Your task to perform on an android device: Open Yahoo.com Image 0: 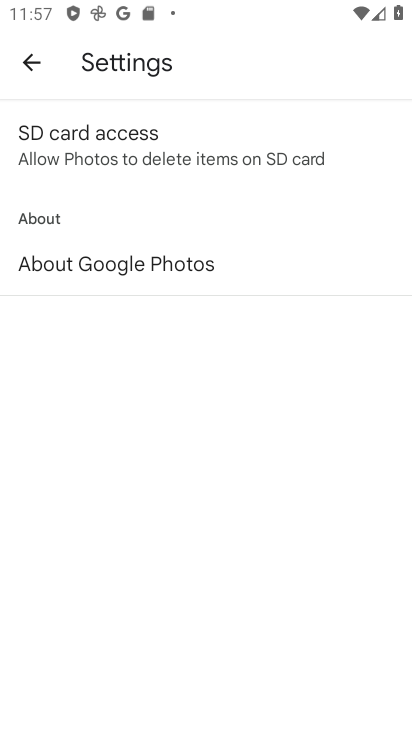
Step 0: click (28, 50)
Your task to perform on an android device: Open Yahoo.com Image 1: 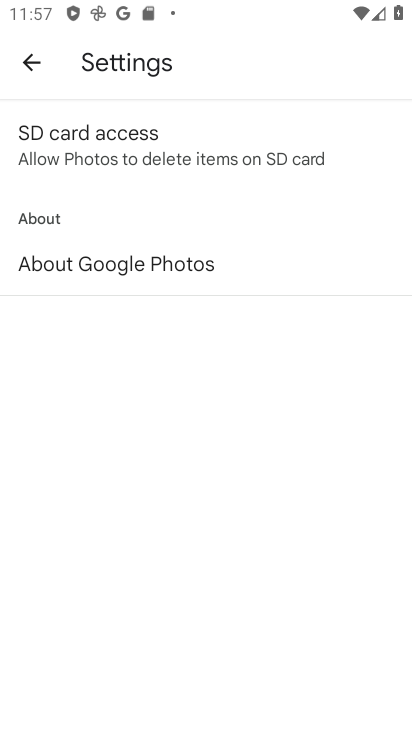
Step 1: click (28, 51)
Your task to perform on an android device: Open Yahoo.com Image 2: 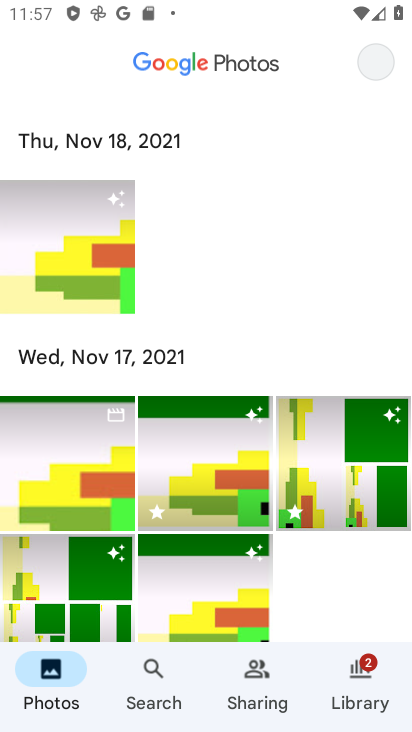
Step 2: click (28, 55)
Your task to perform on an android device: Open Yahoo.com Image 3: 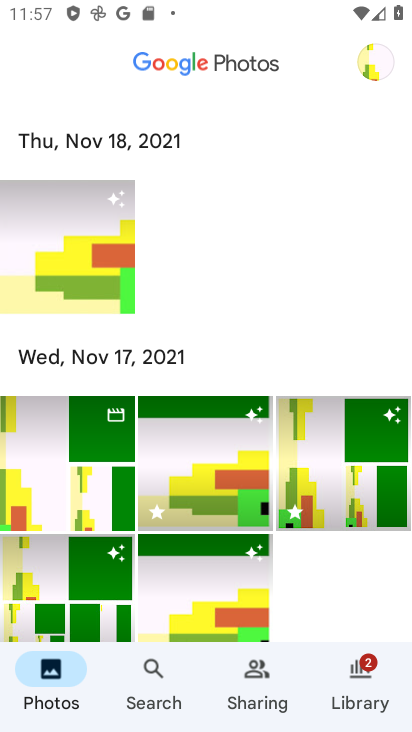
Step 3: press back button
Your task to perform on an android device: Open Yahoo.com Image 4: 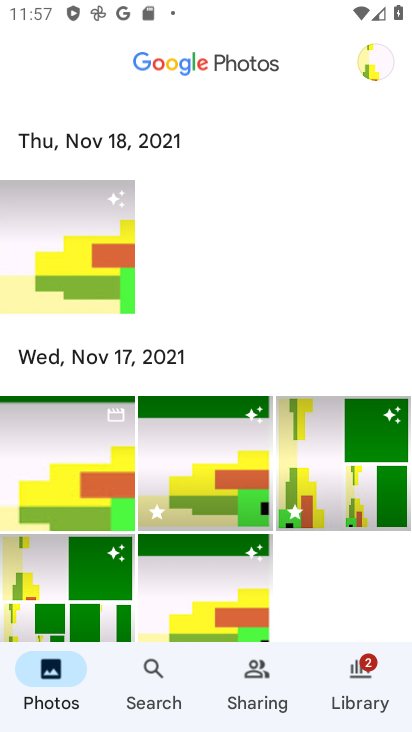
Step 4: press back button
Your task to perform on an android device: Open Yahoo.com Image 5: 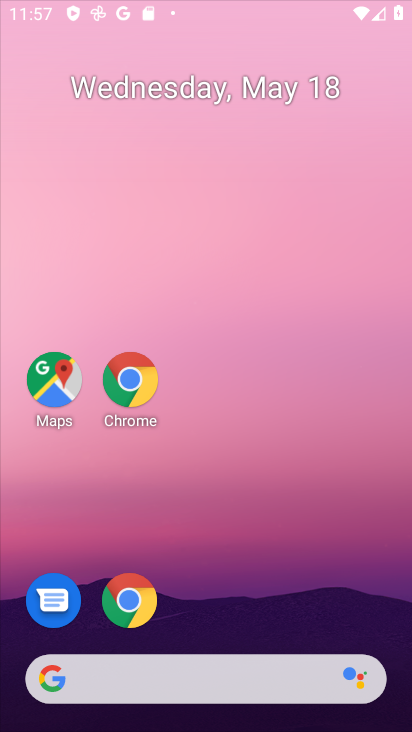
Step 5: press back button
Your task to perform on an android device: Open Yahoo.com Image 6: 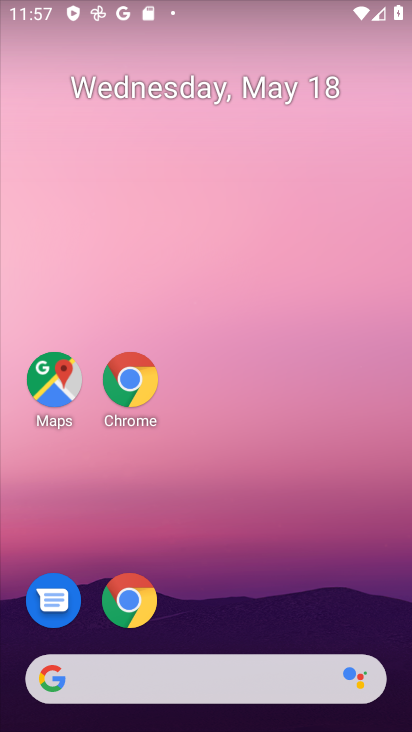
Step 6: drag from (328, 595) to (137, 72)
Your task to perform on an android device: Open Yahoo.com Image 7: 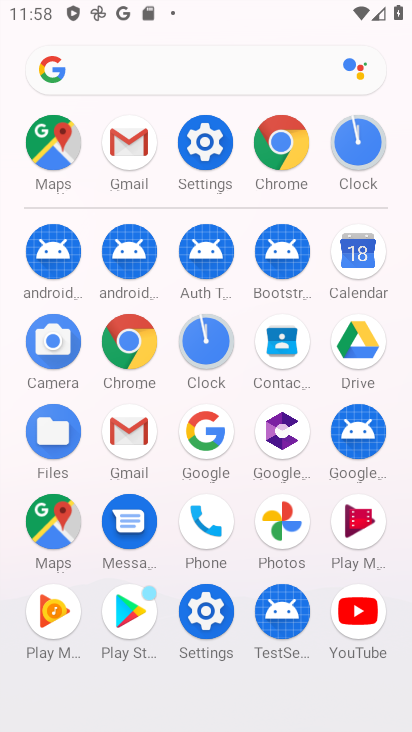
Step 7: click (284, 137)
Your task to perform on an android device: Open Yahoo.com Image 8: 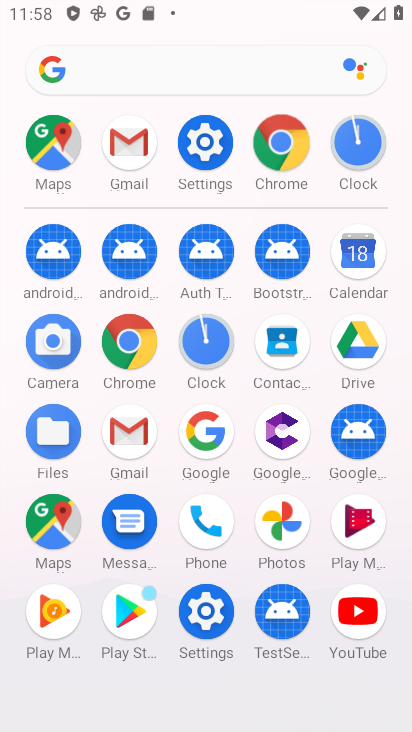
Step 8: click (283, 137)
Your task to perform on an android device: Open Yahoo.com Image 9: 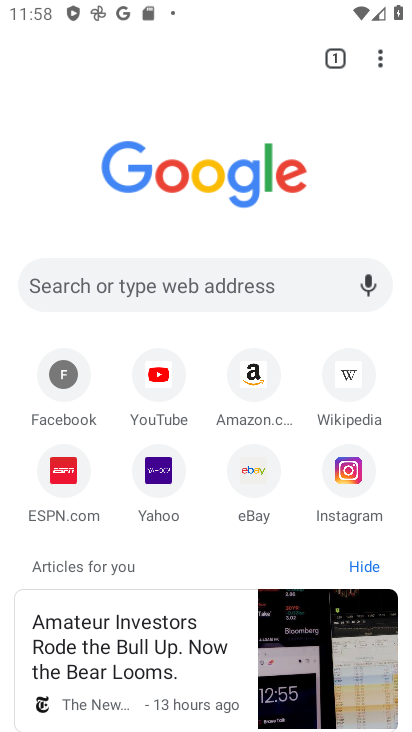
Step 9: click (149, 474)
Your task to perform on an android device: Open Yahoo.com Image 10: 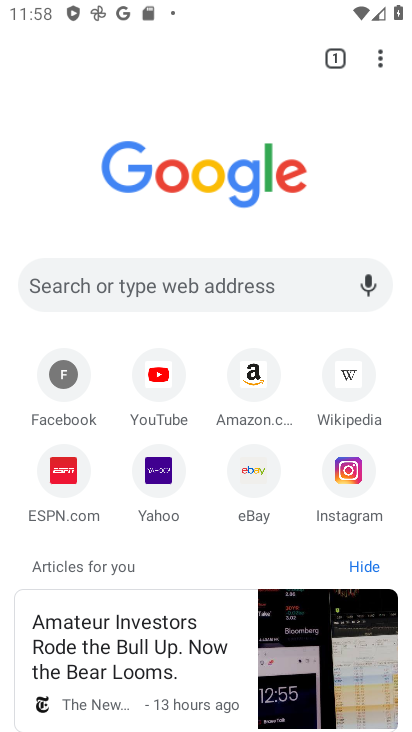
Step 10: click (150, 474)
Your task to perform on an android device: Open Yahoo.com Image 11: 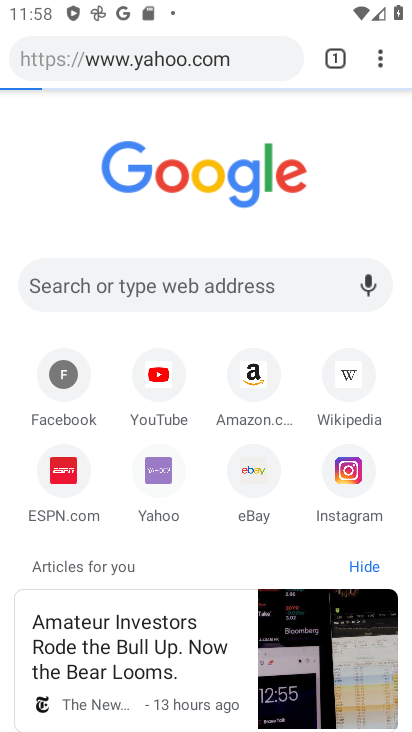
Step 11: click (153, 490)
Your task to perform on an android device: Open Yahoo.com Image 12: 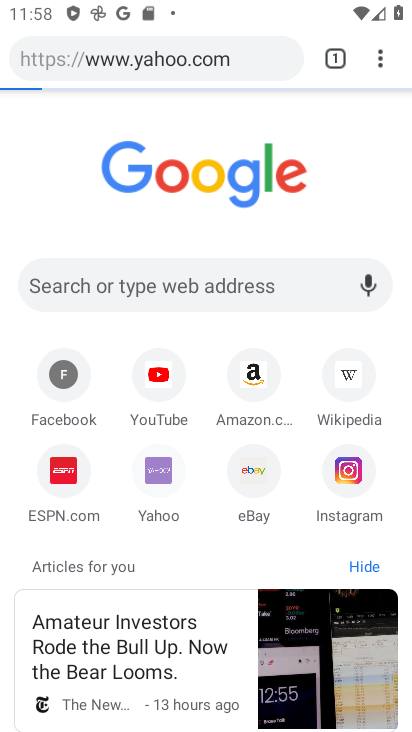
Step 12: click (153, 487)
Your task to perform on an android device: Open Yahoo.com Image 13: 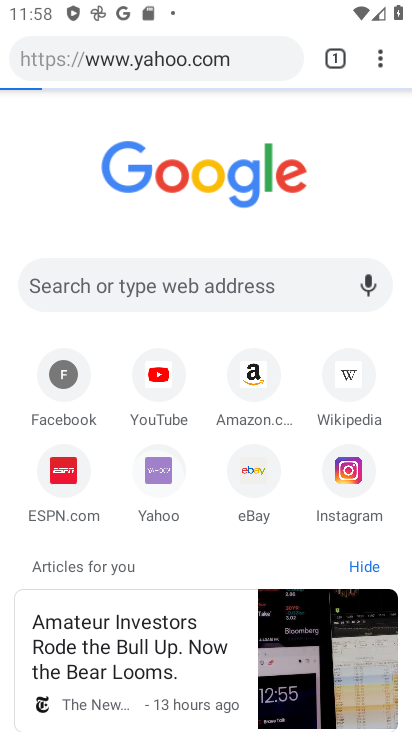
Step 13: click (153, 487)
Your task to perform on an android device: Open Yahoo.com Image 14: 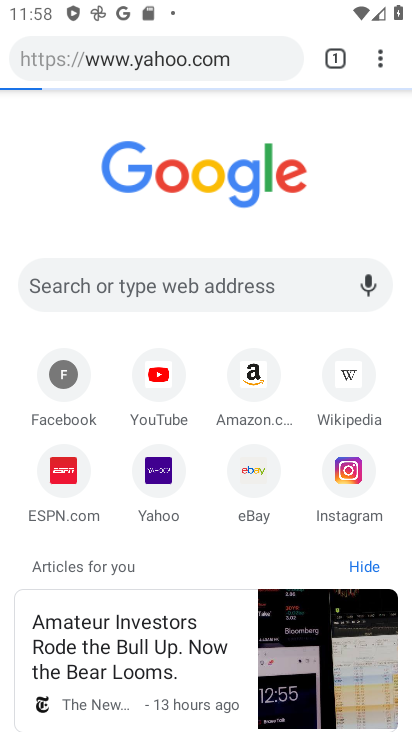
Step 14: click (153, 482)
Your task to perform on an android device: Open Yahoo.com Image 15: 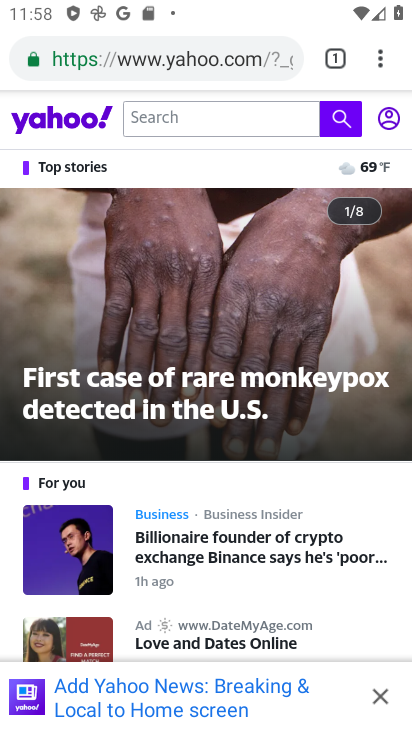
Step 15: press back button
Your task to perform on an android device: Open Yahoo.com Image 16: 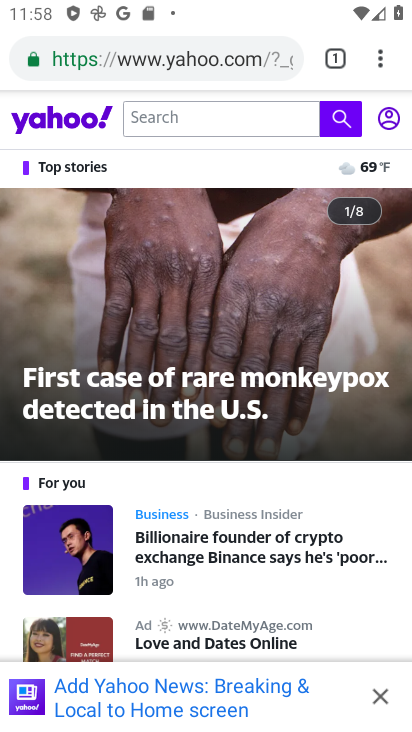
Step 16: press back button
Your task to perform on an android device: Open Yahoo.com Image 17: 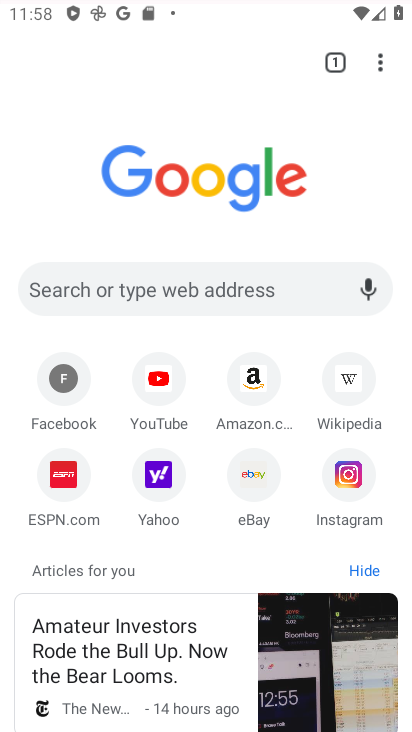
Step 17: press back button
Your task to perform on an android device: Open Yahoo.com Image 18: 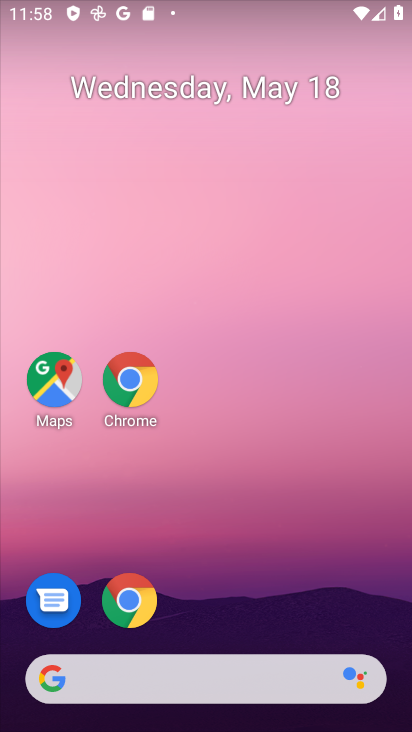
Step 18: press home button
Your task to perform on an android device: Open Yahoo.com Image 19: 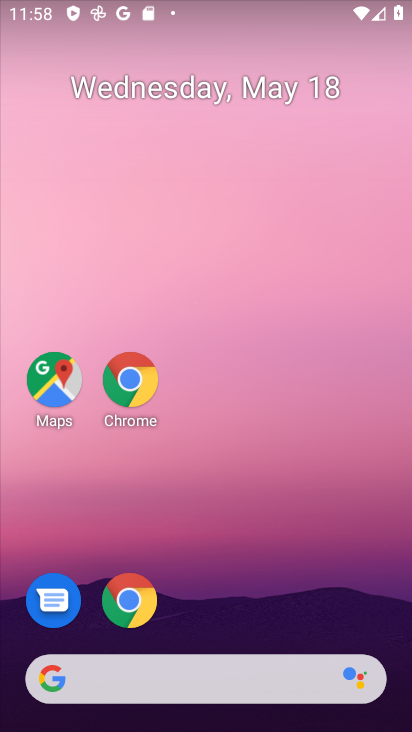
Step 19: press home button
Your task to perform on an android device: Open Yahoo.com Image 20: 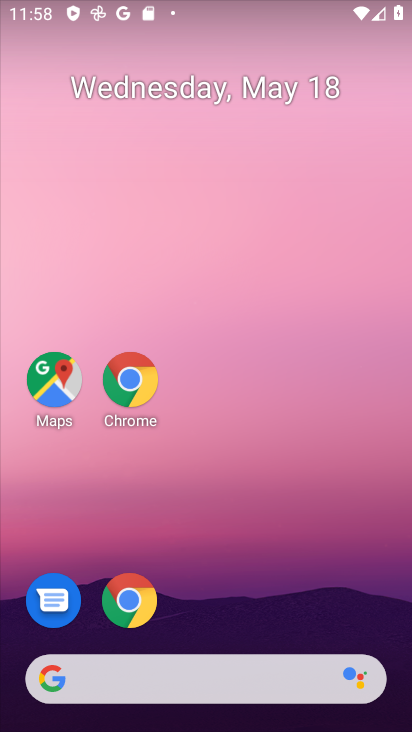
Step 20: drag from (331, 674) to (156, 29)
Your task to perform on an android device: Open Yahoo.com Image 21: 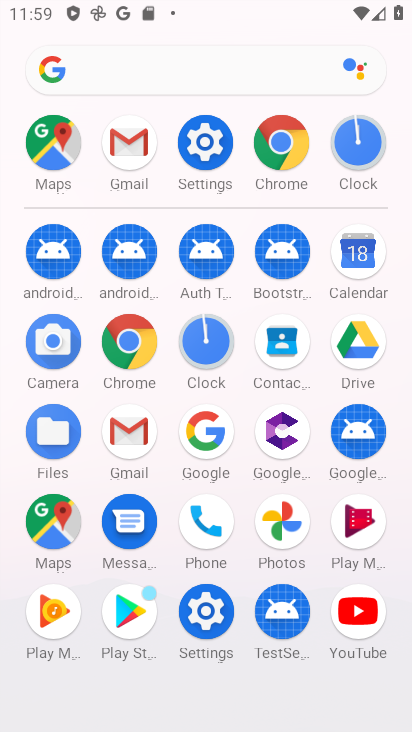
Step 21: click (272, 134)
Your task to perform on an android device: Open Yahoo.com Image 22: 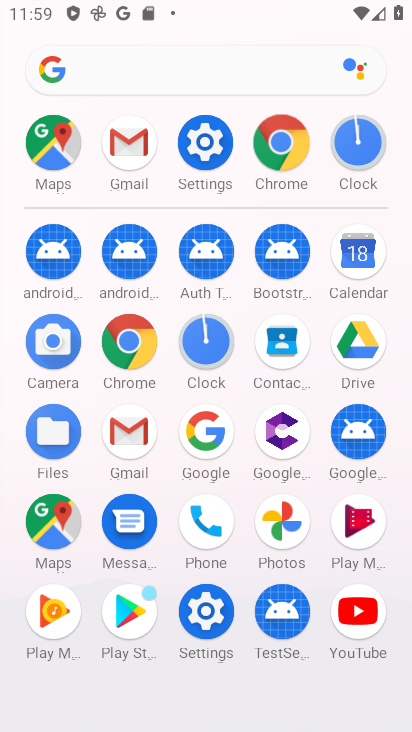
Step 22: click (271, 133)
Your task to perform on an android device: Open Yahoo.com Image 23: 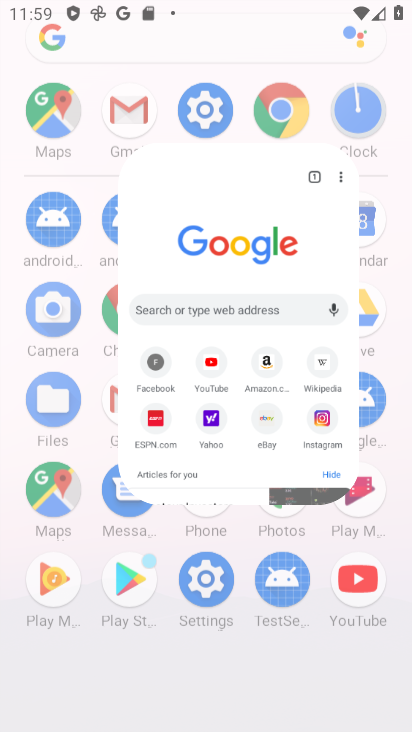
Step 23: click (271, 133)
Your task to perform on an android device: Open Yahoo.com Image 24: 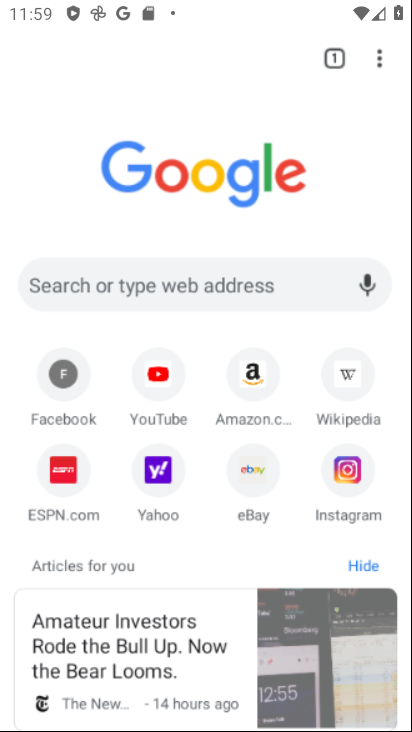
Step 24: click (278, 133)
Your task to perform on an android device: Open Yahoo.com Image 25: 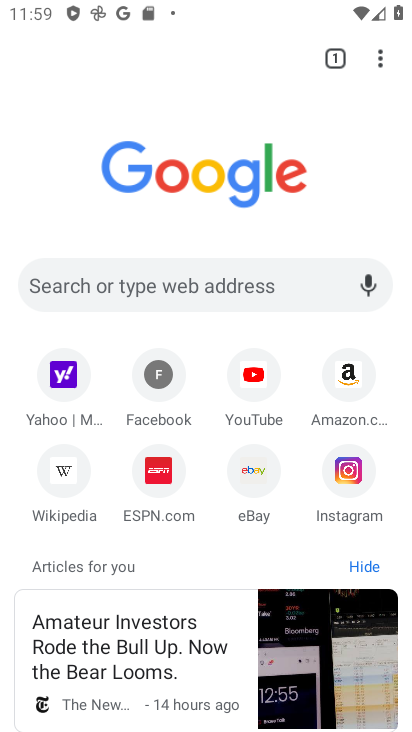
Step 25: click (58, 373)
Your task to perform on an android device: Open Yahoo.com Image 26: 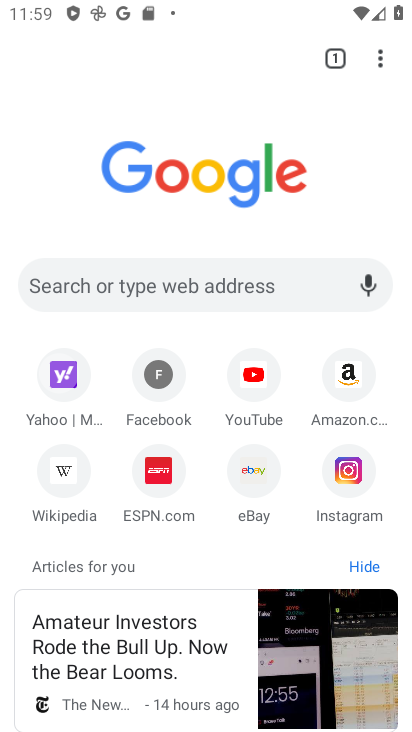
Step 26: click (59, 372)
Your task to perform on an android device: Open Yahoo.com Image 27: 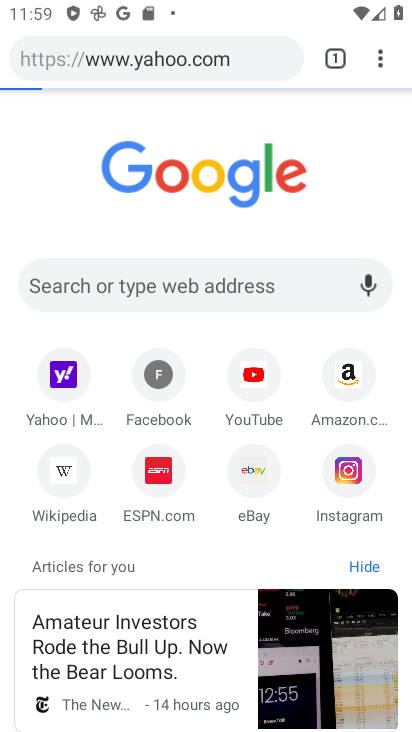
Step 27: click (63, 372)
Your task to perform on an android device: Open Yahoo.com Image 28: 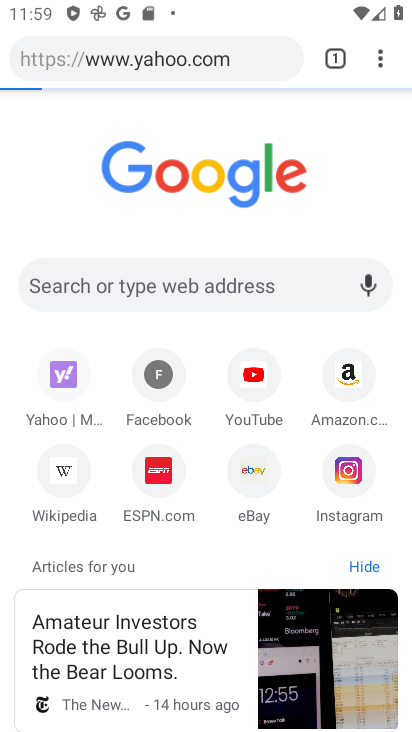
Step 28: click (64, 374)
Your task to perform on an android device: Open Yahoo.com Image 29: 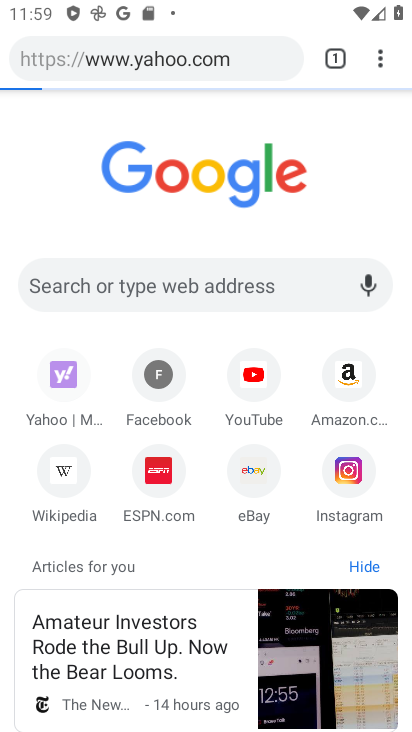
Step 29: click (69, 373)
Your task to perform on an android device: Open Yahoo.com Image 30: 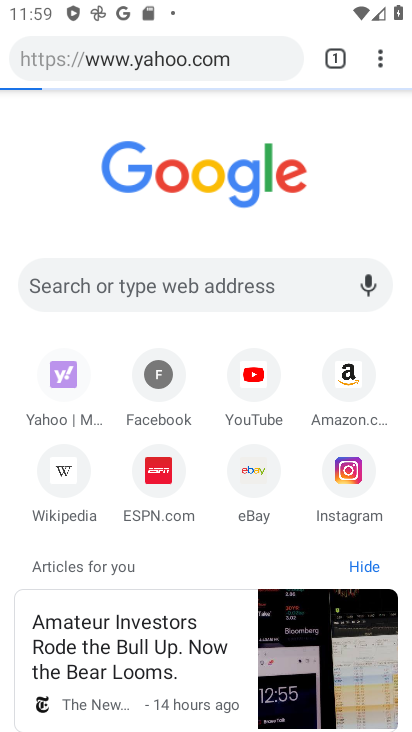
Step 30: click (70, 371)
Your task to perform on an android device: Open Yahoo.com Image 31: 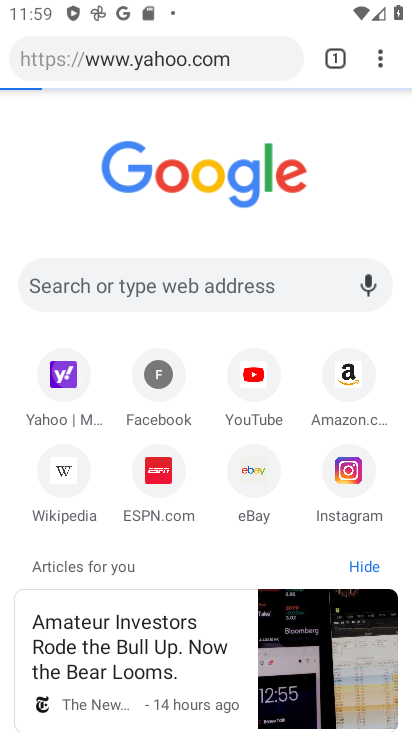
Step 31: click (71, 369)
Your task to perform on an android device: Open Yahoo.com Image 32: 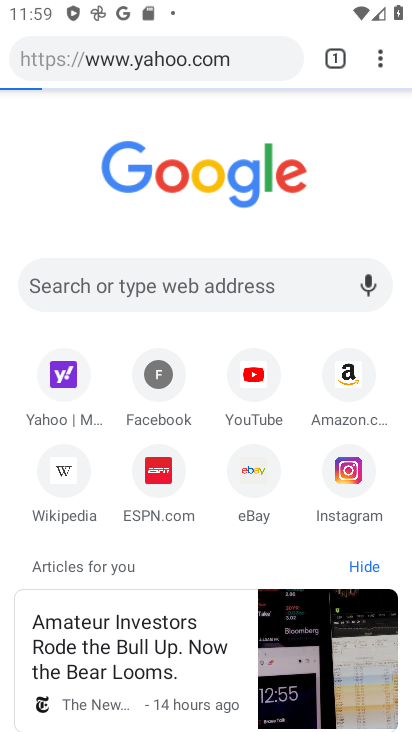
Step 32: click (64, 352)
Your task to perform on an android device: Open Yahoo.com Image 33: 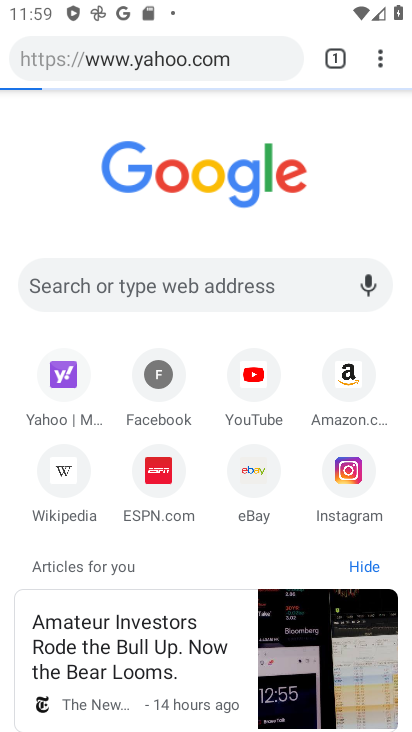
Step 33: click (62, 351)
Your task to perform on an android device: Open Yahoo.com Image 34: 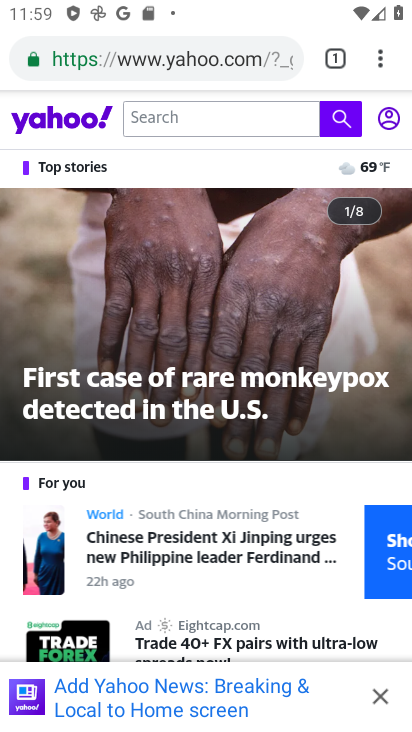
Step 34: task complete